Your task to perform on an android device: Do I have any events today? Image 0: 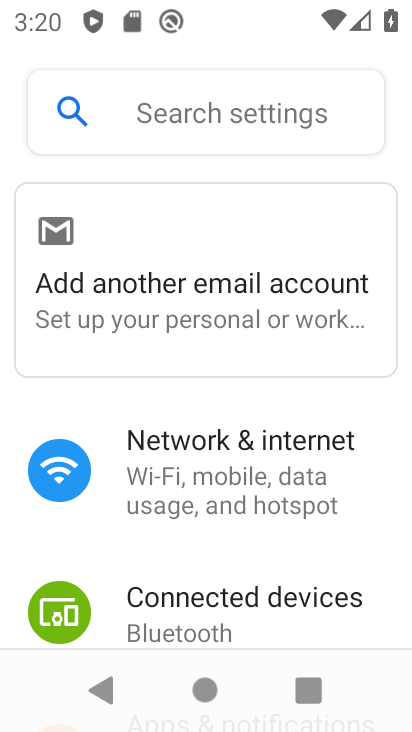
Step 0: press home button
Your task to perform on an android device: Do I have any events today? Image 1: 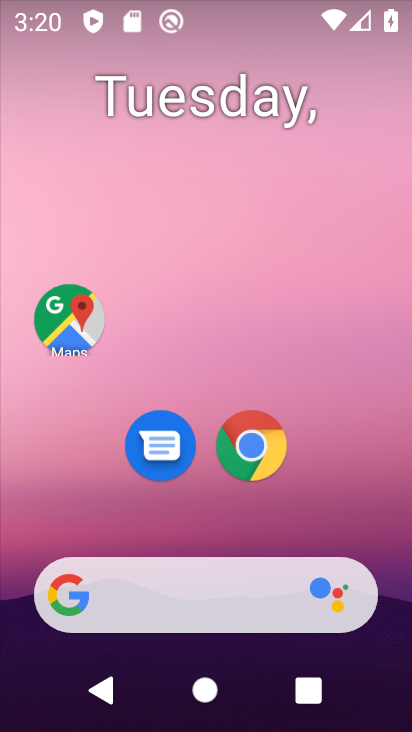
Step 1: drag from (332, 493) to (340, 153)
Your task to perform on an android device: Do I have any events today? Image 2: 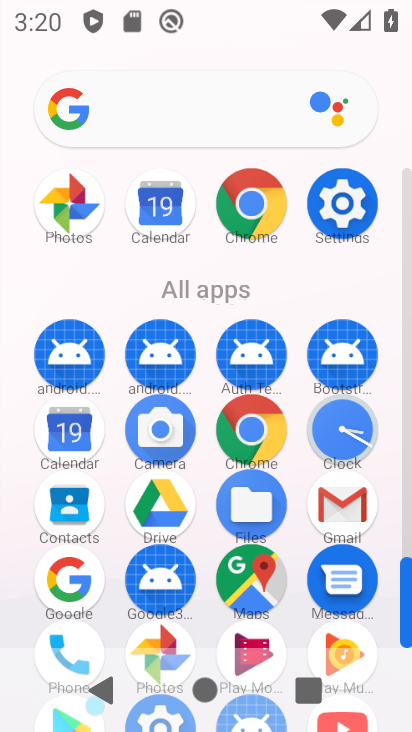
Step 2: click (81, 442)
Your task to perform on an android device: Do I have any events today? Image 3: 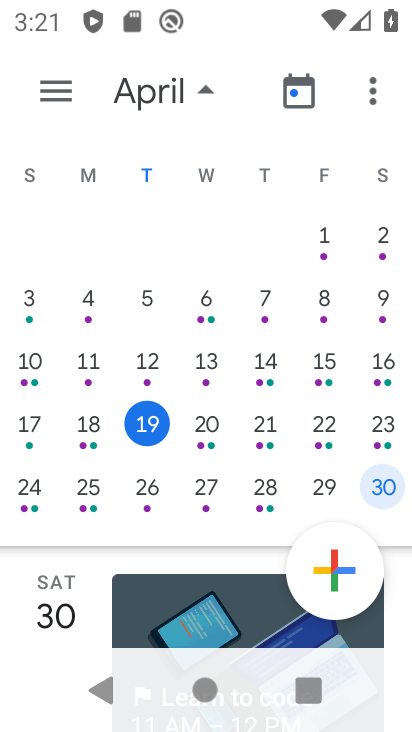
Step 3: click (147, 415)
Your task to perform on an android device: Do I have any events today? Image 4: 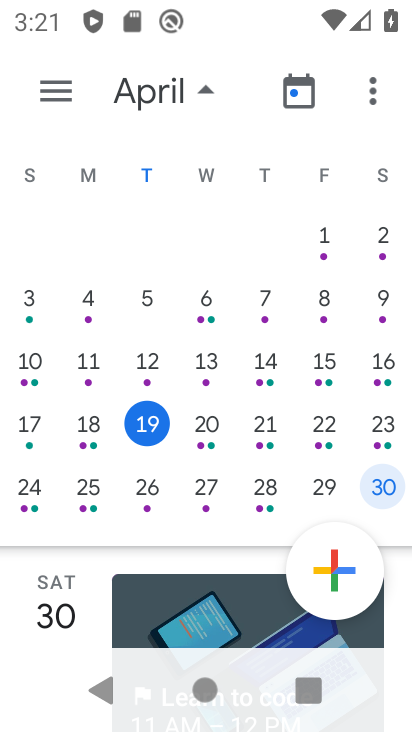
Step 4: click (212, 425)
Your task to perform on an android device: Do I have any events today? Image 5: 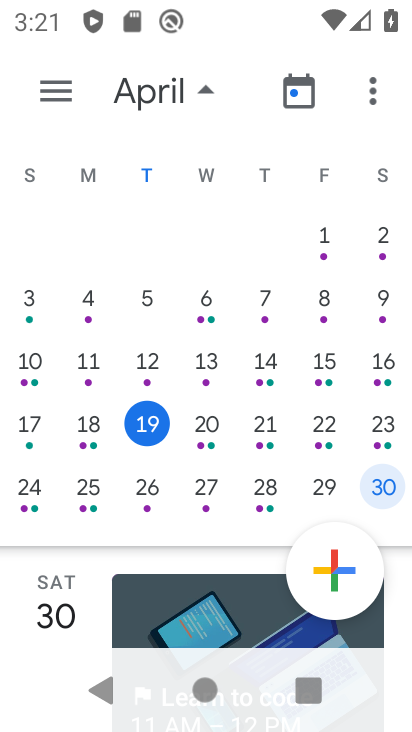
Step 5: click (148, 423)
Your task to perform on an android device: Do I have any events today? Image 6: 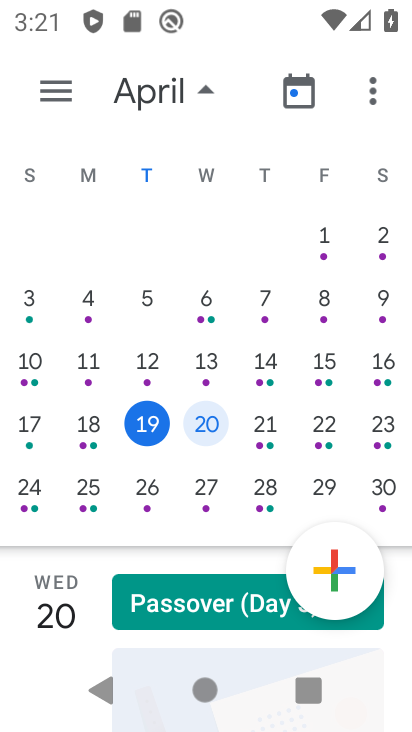
Step 6: drag from (184, 481) to (207, 272)
Your task to perform on an android device: Do I have any events today? Image 7: 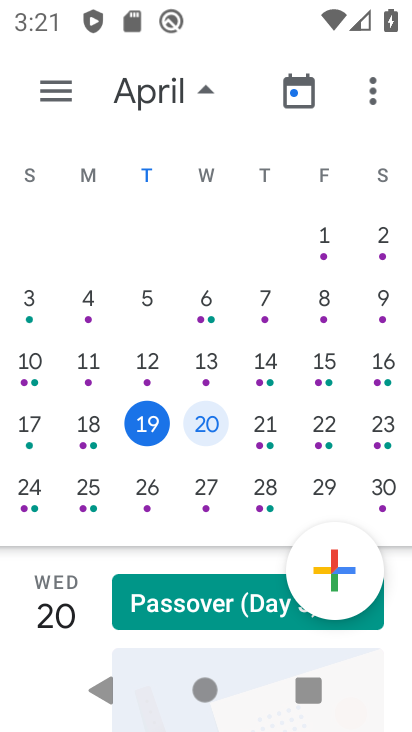
Step 7: click (154, 423)
Your task to perform on an android device: Do I have any events today? Image 8: 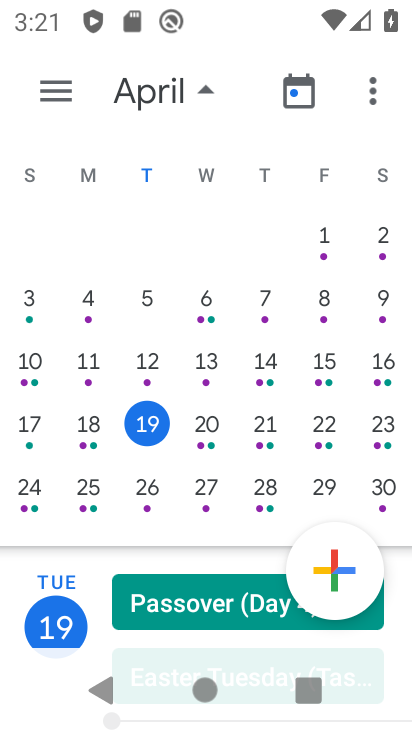
Step 8: click (136, 436)
Your task to perform on an android device: Do I have any events today? Image 9: 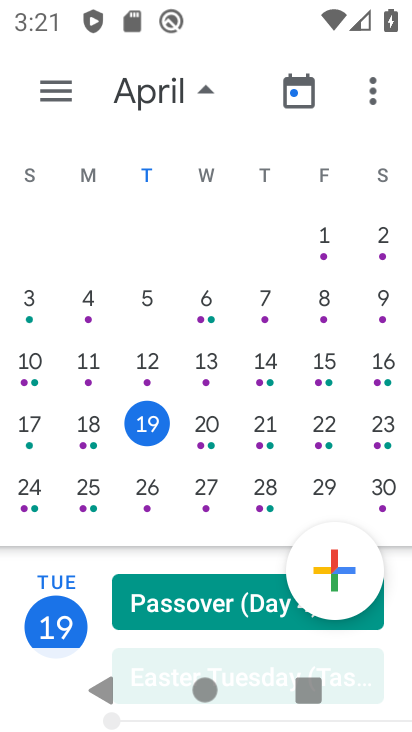
Step 9: task complete